Your task to perform on an android device: Open notification settings Image 0: 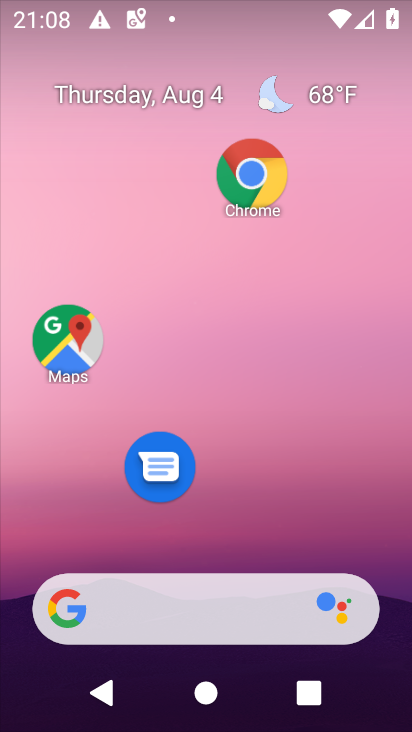
Step 0: press home button
Your task to perform on an android device: Open notification settings Image 1: 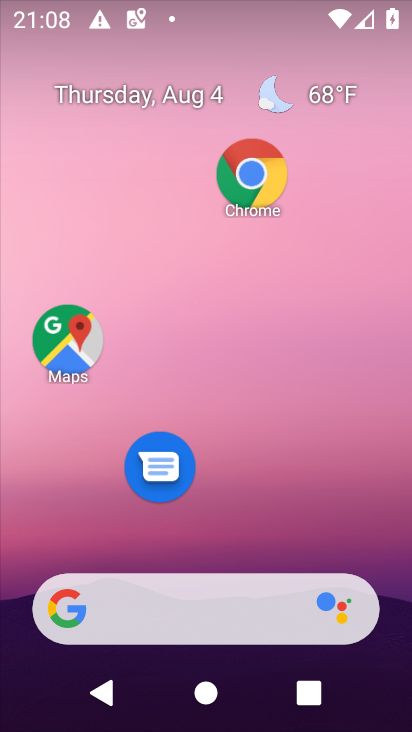
Step 1: press home button
Your task to perform on an android device: Open notification settings Image 2: 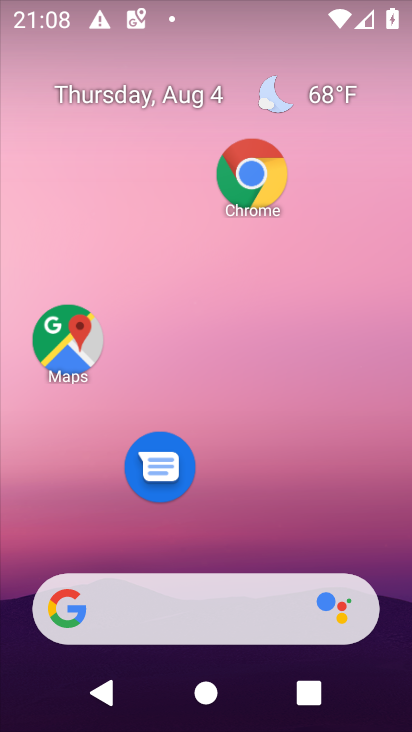
Step 2: drag from (339, 555) to (241, 208)
Your task to perform on an android device: Open notification settings Image 3: 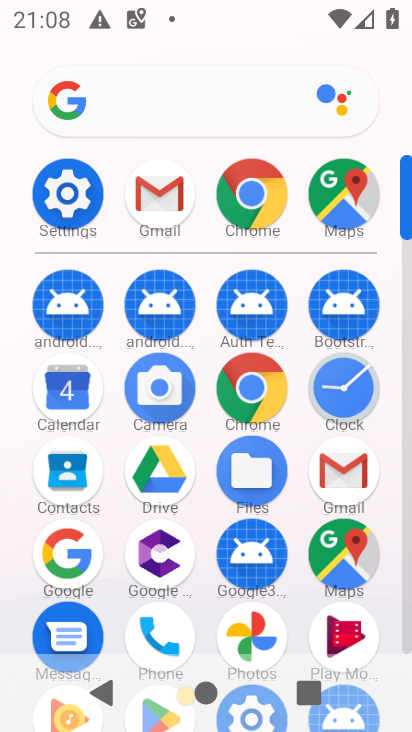
Step 3: click (69, 199)
Your task to perform on an android device: Open notification settings Image 4: 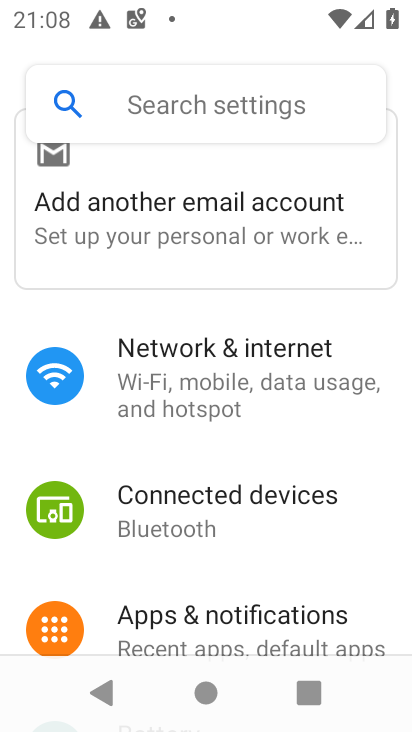
Step 4: drag from (145, 576) to (77, 170)
Your task to perform on an android device: Open notification settings Image 5: 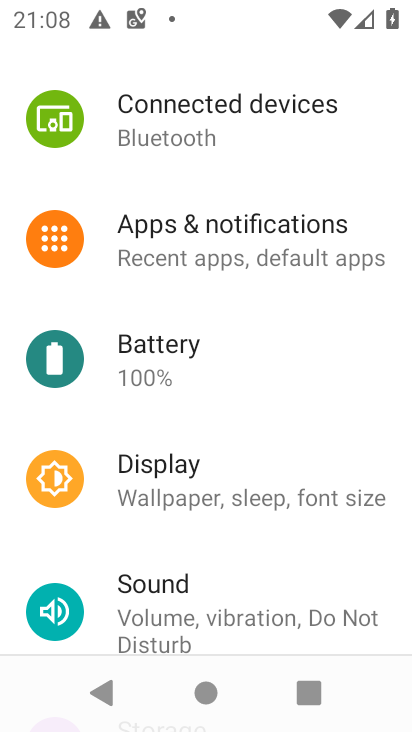
Step 5: click (214, 259)
Your task to perform on an android device: Open notification settings Image 6: 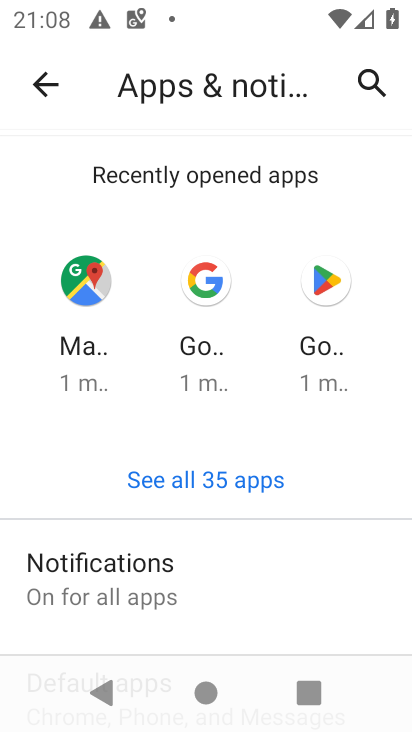
Step 6: drag from (270, 583) to (226, 257)
Your task to perform on an android device: Open notification settings Image 7: 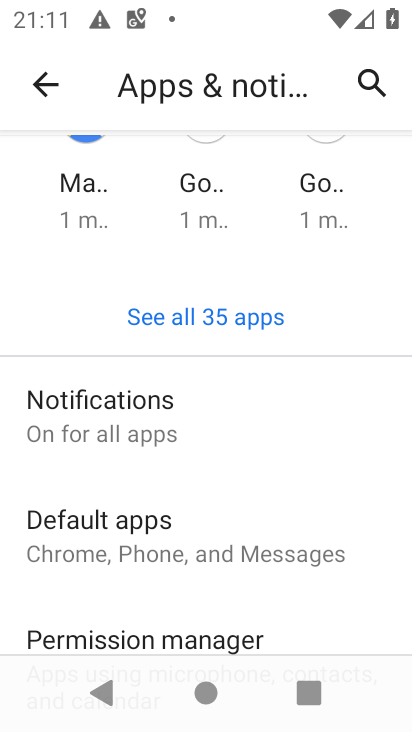
Step 7: click (85, 417)
Your task to perform on an android device: Open notification settings Image 8: 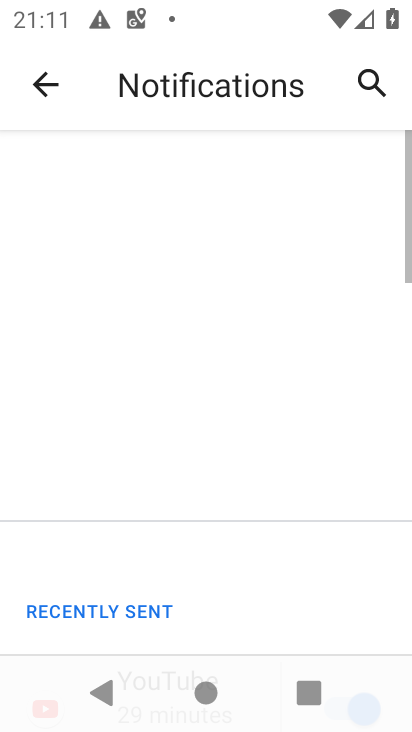
Step 8: task complete